Your task to perform on an android device: change the clock display to show seconds Image 0: 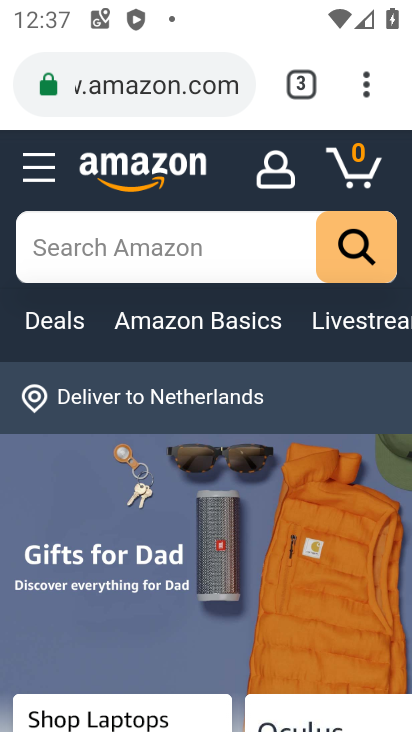
Step 0: press home button
Your task to perform on an android device: change the clock display to show seconds Image 1: 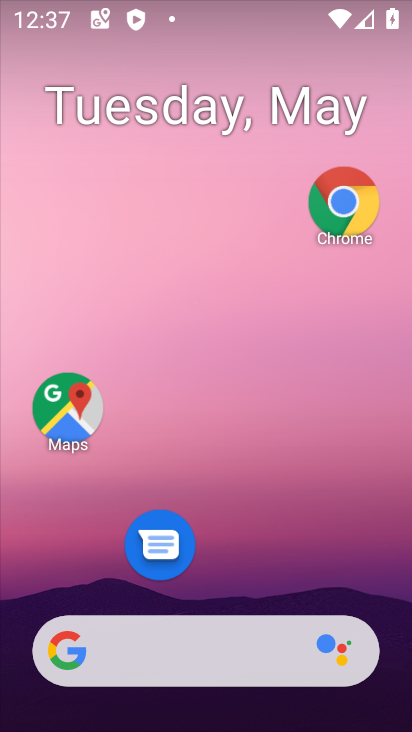
Step 1: drag from (219, 574) to (242, 121)
Your task to perform on an android device: change the clock display to show seconds Image 2: 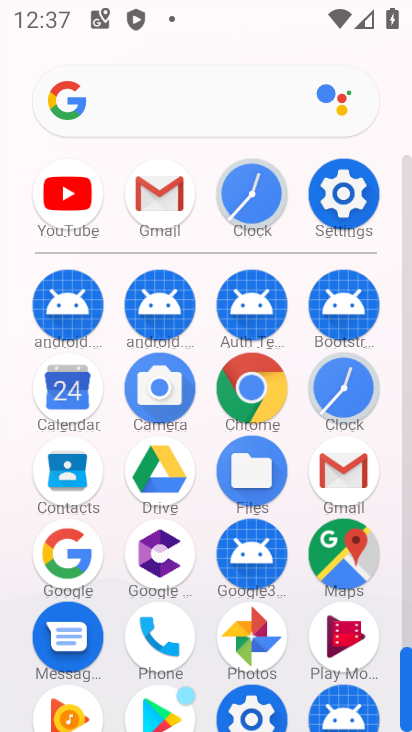
Step 2: click (351, 378)
Your task to perform on an android device: change the clock display to show seconds Image 3: 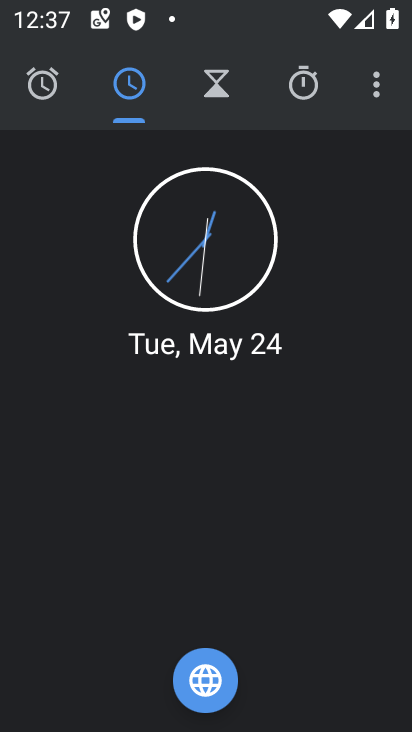
Step 3: click (378, 79)
Your task to perform on an android device: change the clock display to show seconds Image 4: 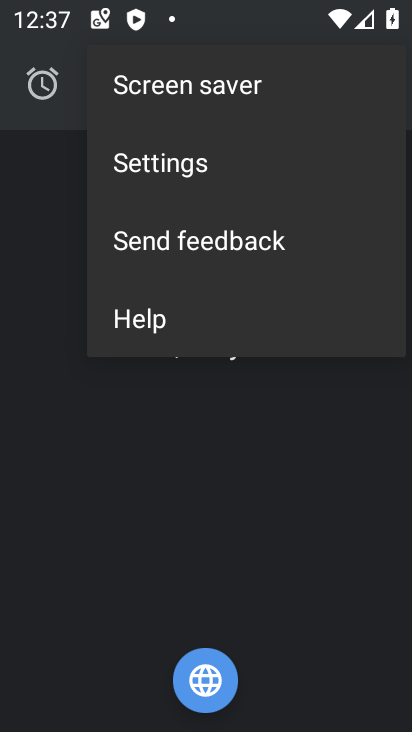
Step 4: click (173, 180)
Your task to perform on an android device: change the clock display to show seconds Image 5: 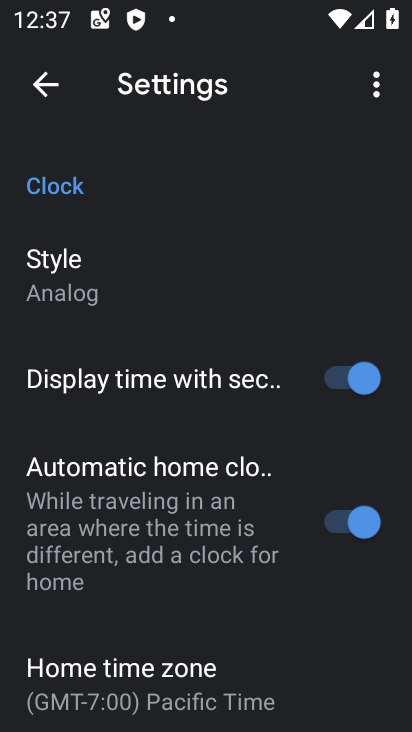
Step 5: task complete